Your task to perform on an android device: See recent photos Image 0: 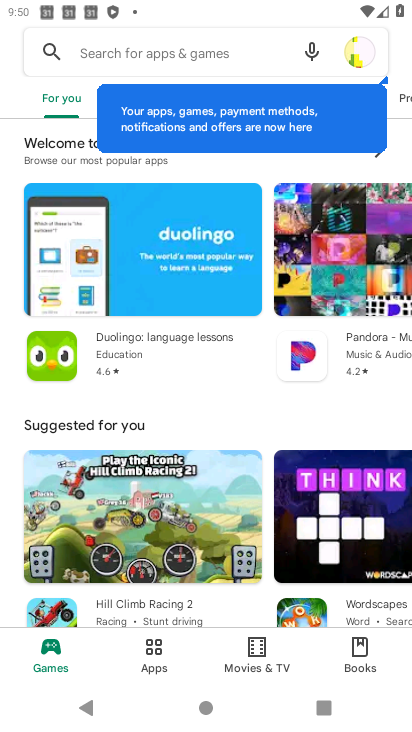
Step 0: press home button
Your task to perform on an android device: See recent photos Image 1: 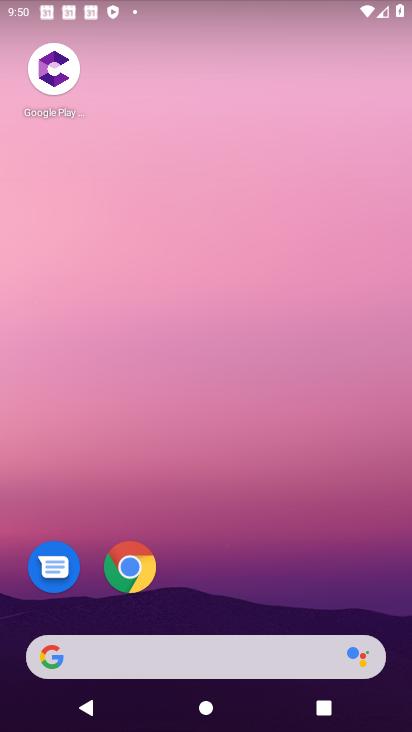
Step 1: drag from (207, 642) to (279, 14)
Your task to perform on an android device: See recent photos Image 2: 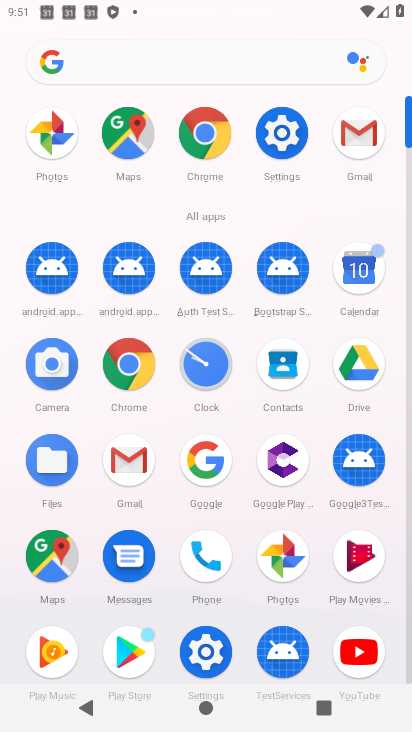
Step 2: click (287, 570)
Your task to perform on an android device: See recent photos Image 3: 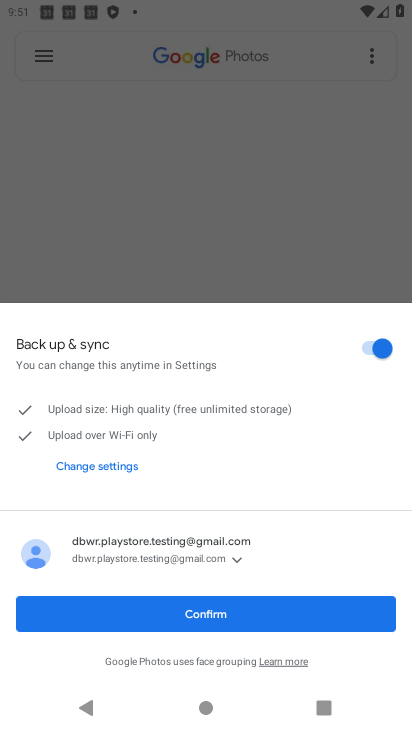
Step 3: click (297, 626)
Your task to perform on an android device: See recent photos Image 4: 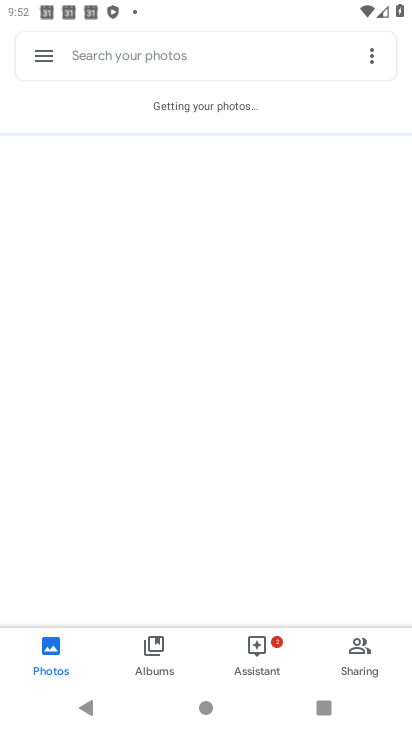
Step 4: task complete